Your task to perform on an android device: open sync settings in chrome Image 0: 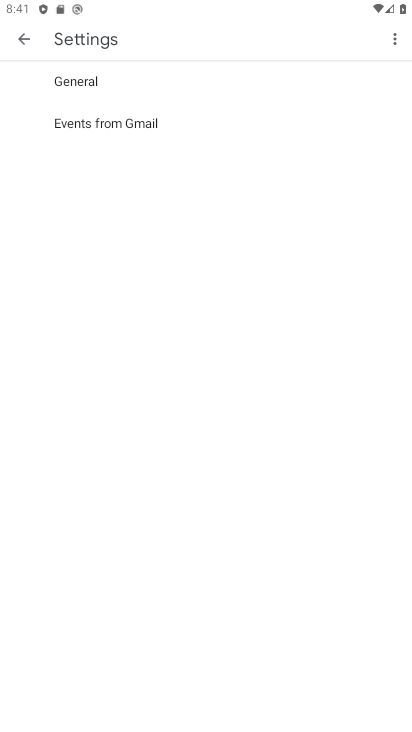
Step 0: press home button
Your task to perform on an android device: open sync settings in chrome Image 1: 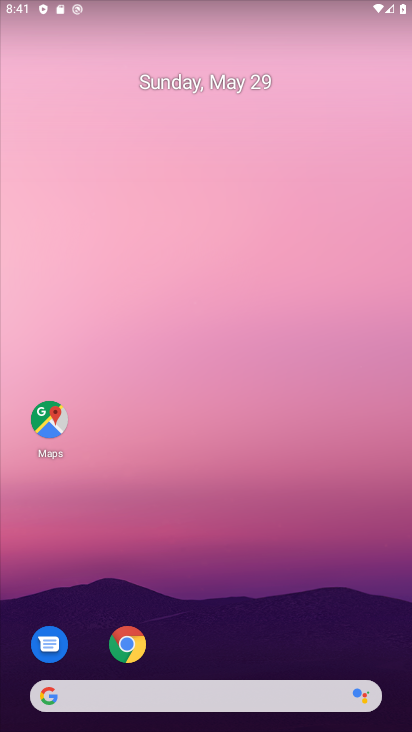
Step 1: click (128, 649)
Your task to perform on an android device: open sync settings in chrome Image 2: 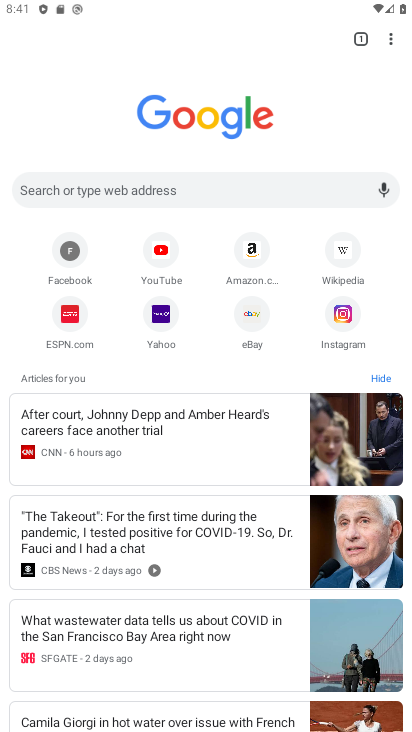
Step 2: drag from (392, 36) to (262, 324)
Your task to perform on an android device: open sync settings in chrome Image 3: 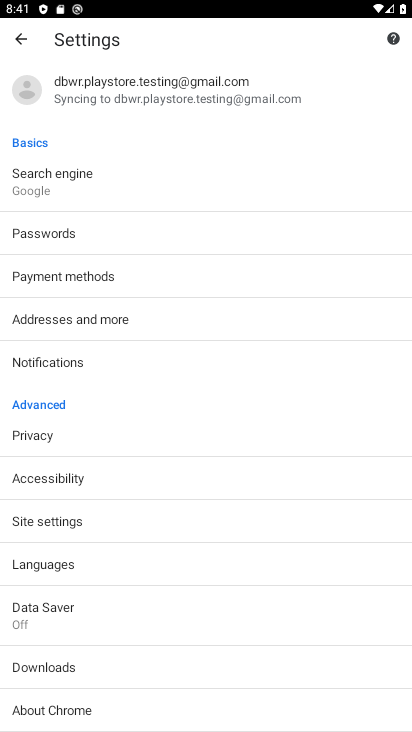
Step 3: click (176, 107)
Your task to perform on an android device: open sync settings in chrome Image 4: 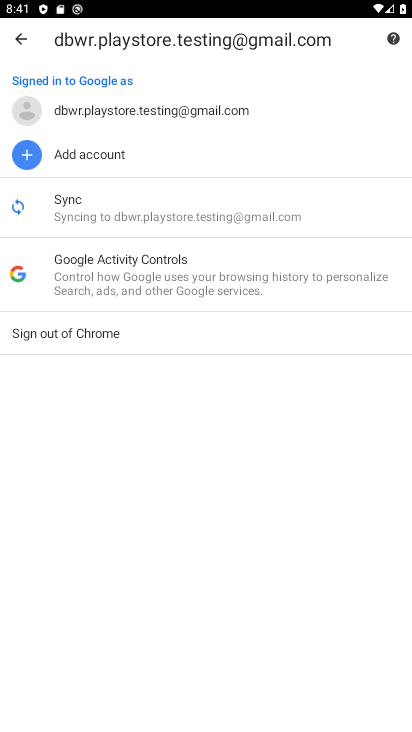
Step 4: click (124, 207)
Your task to perform on an android device: open sync settings in chrome Image 5: 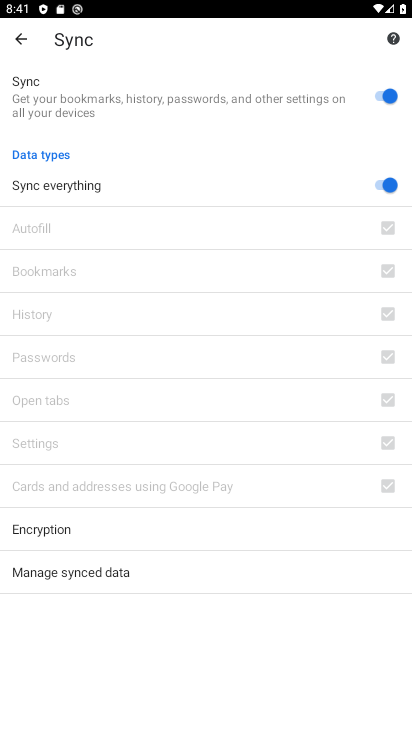
Step 5: task complete